Your task to perform on an android device: Do I have any events today? Image 0: 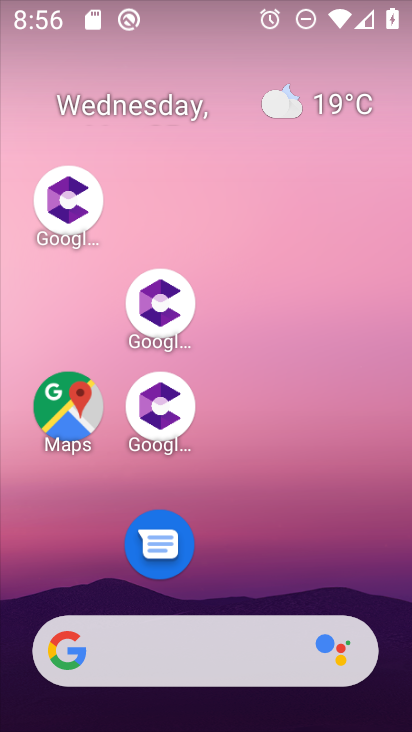
Step 0: drag from (282, 550) to (203, 139)
Your task to perform on an android device: Do I have any events today? Image 1: 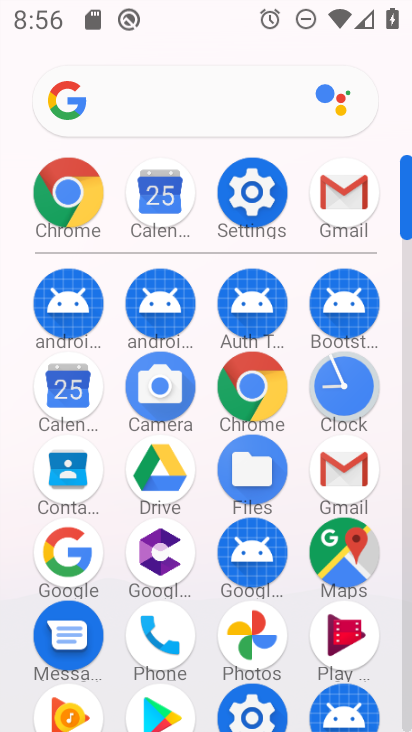
Step 1: click (70, 388)
Your task to perform on an android device: Do I have any events today? Image 2: 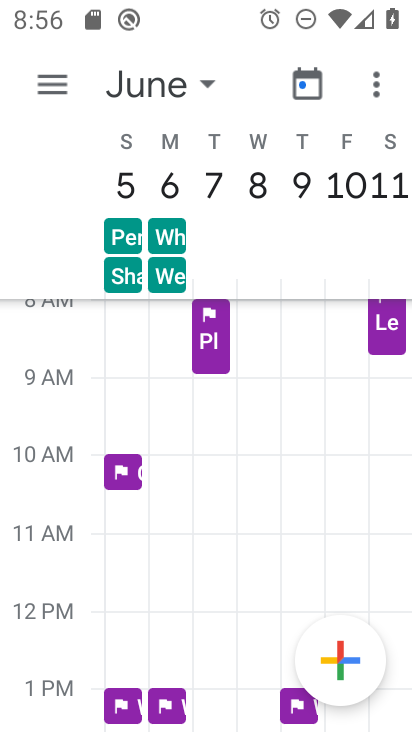
Step 2: click (211, 84)
Your task to perform on an android device: Do I have any events today? Image 3: 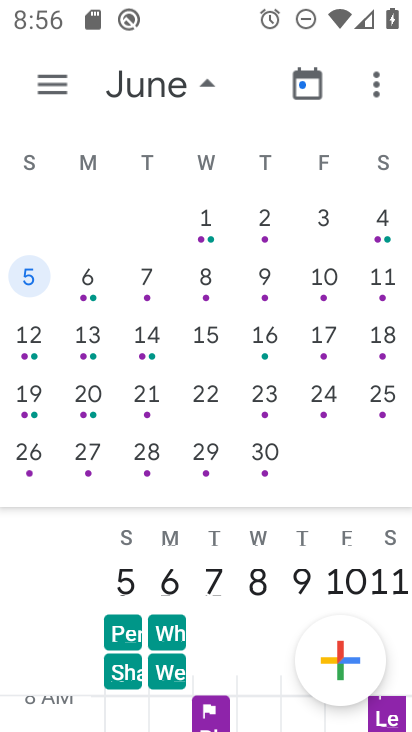
Step 3: drag from (37, 335) to (400, 500)
Your task to perform on an android device: Do I have any events today? Image 4: 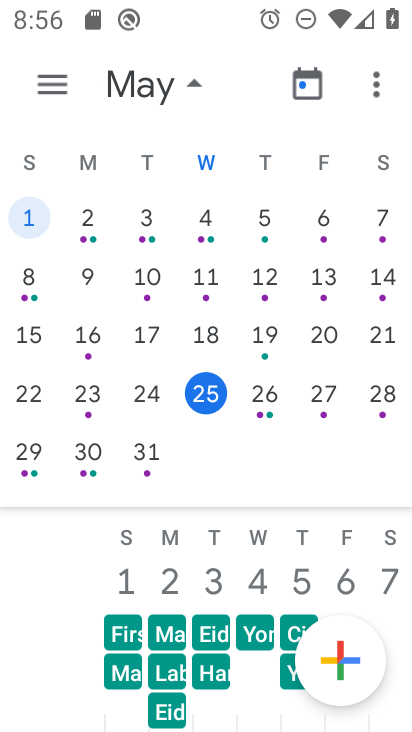
Step 4: click (204, 394)
Your task to perform on an android device: Do I have any events today? Image 5: 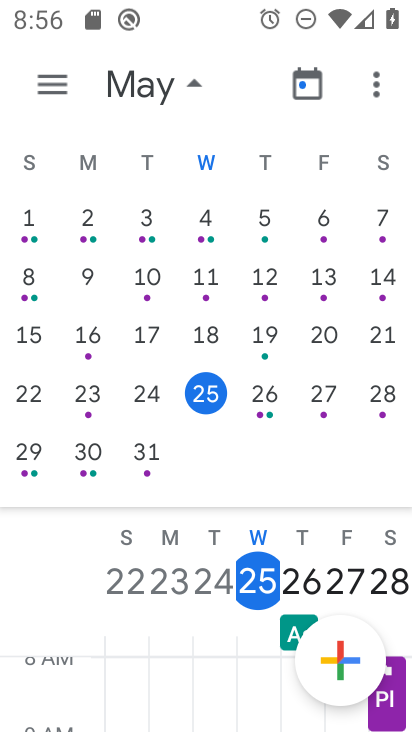
Step 5: drag from (195, 633) to (181, 327)
Your task to perform on an android device: Do I have any events today? Image 6: 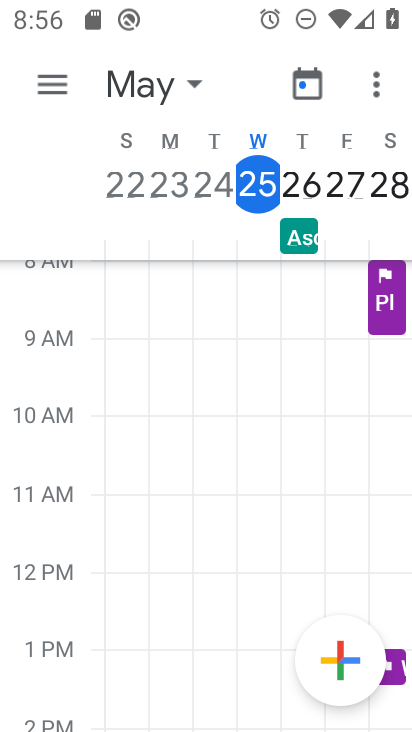
Step 6: click (255, 178)
Your task to perform on an android device: Do I have any events today? Image 7: 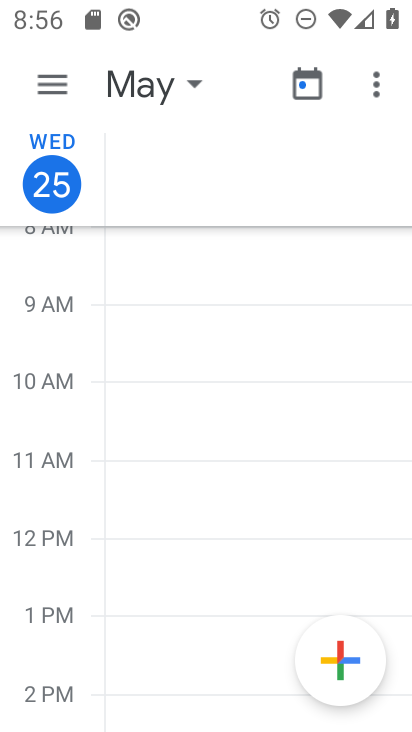
Step 7: task complete